Your task to perform on an android device: Open Google Image 0: 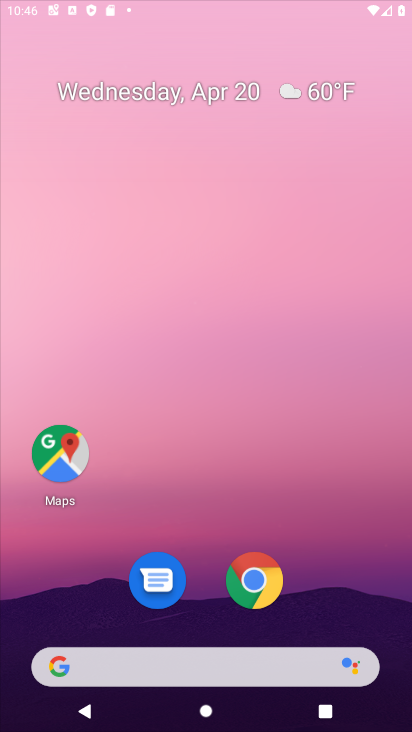
Step 0: drag from (226, 611) to (206, 117)
Your task to perform on an android device: Open Google Image 1: 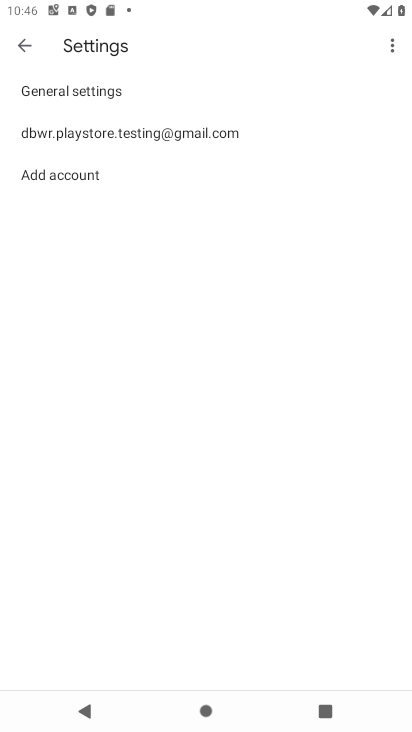
Step 1: press home button
Your task to perform on an android device: Open Google Image 2: 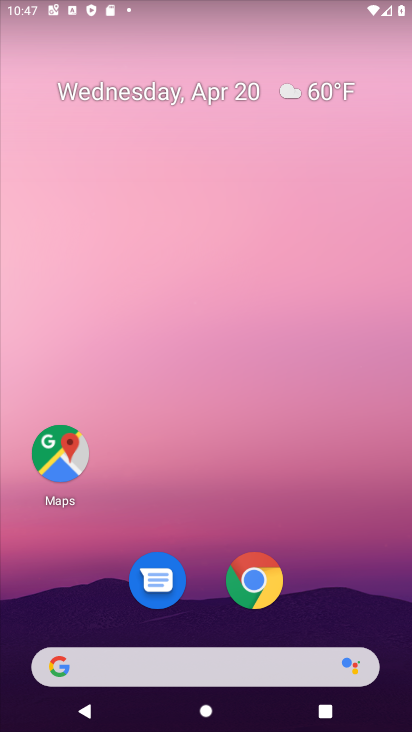
Step 2: drag from (211, 619) to (203, 201)
Your task to perform on an android device: Open Google Image 3: 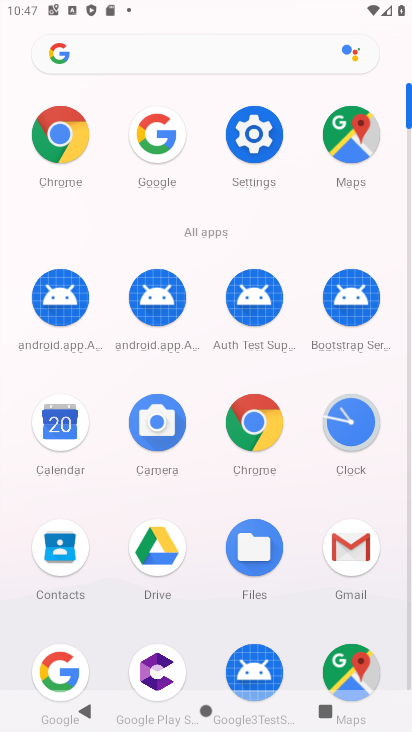
Step 3: click (63, 654)
Your task to perform on an android device: Open Google Image 4: 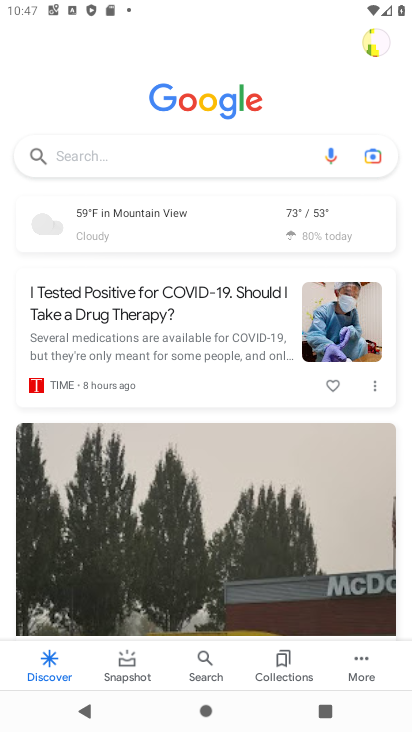
Step 4: task complete